Your task to perform on an android device: Open Youtube and go to "Your channel" Image 0: 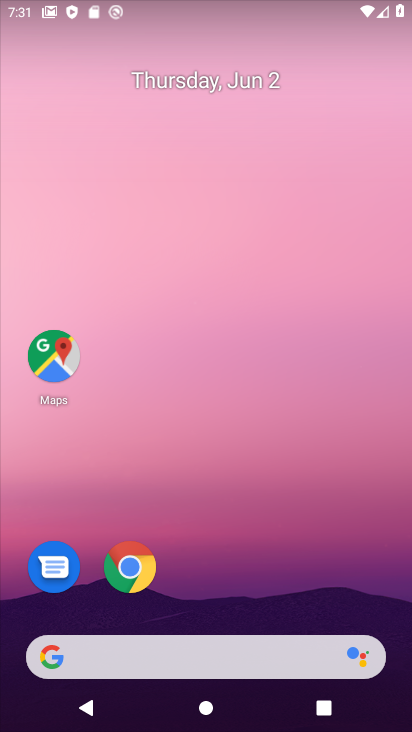
Step 0: drag from (262, 606) to (226, 25)
Your task to perform on an android device: Open Youtube and go to "Your channel" Image 1: 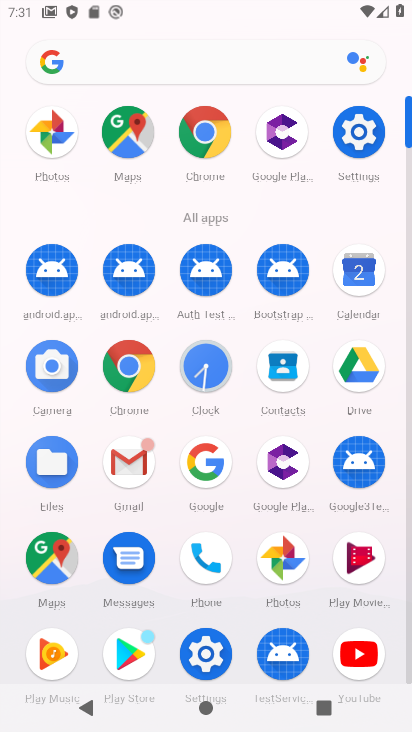
Step 1: drag from (236, 500) to (237, 278)
Your task to perform on an android device: Open Youtube and go to "Your channel" Image 2: 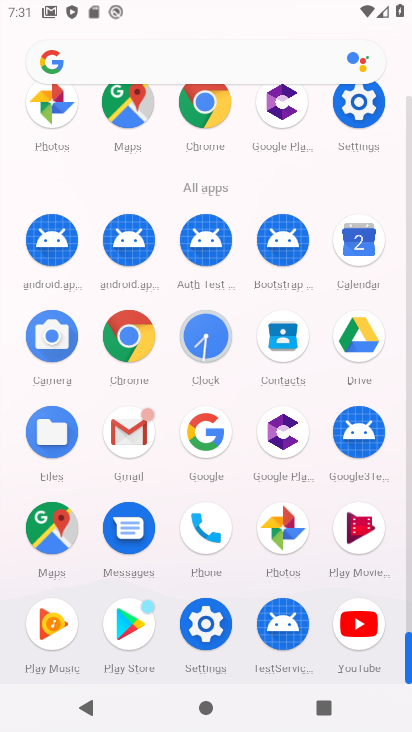
Step 2: click (359, 625)
Your task to perform on an android device: Open Youtube and go to "Your channel" Image 3: 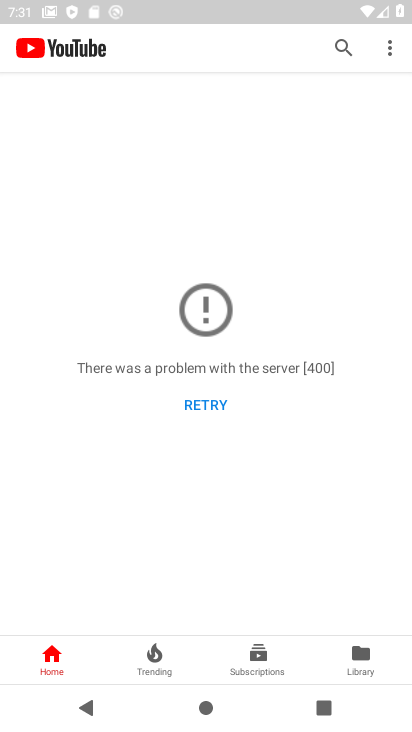
Step 3: click (249, 657)
Your task to perform on an android device: Open Youtube and go to "Your channel" Image 4: 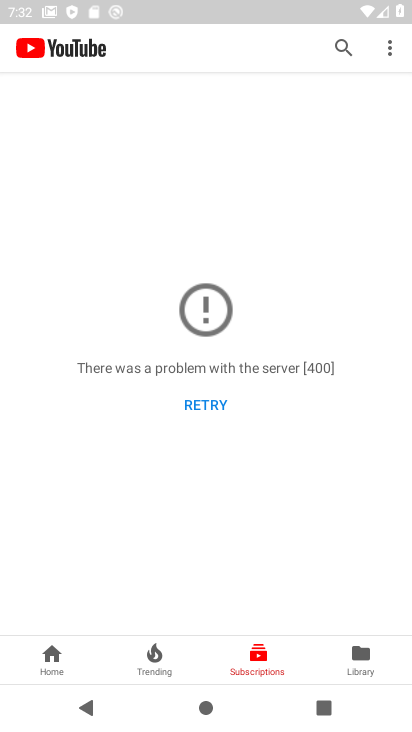
Step 4: click (206, 401)
Your task to perform on an android device: Open Youtube and go to "Your channel" Image 5: 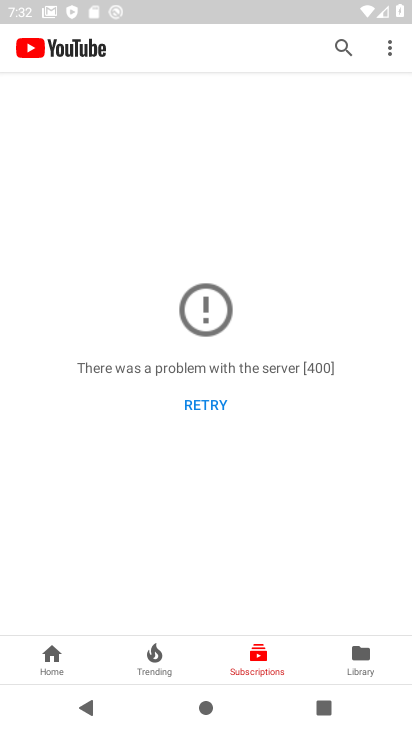
Step 5: click (206, 401)
Your task to perform on an android device: Open Youtube and go to "Your channel" Image 6: 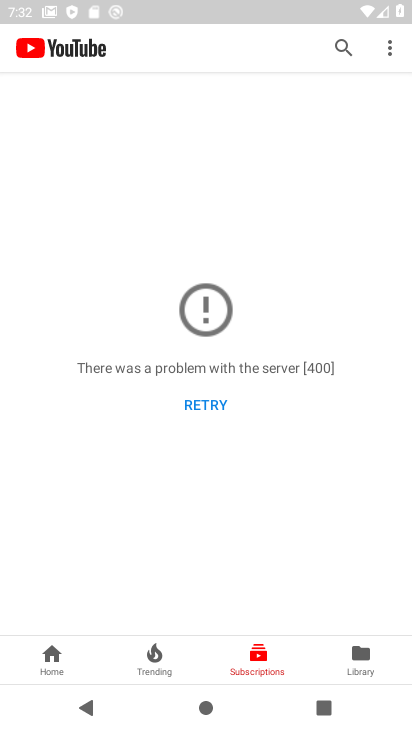
Step 6: click (361, 657)
Your task to perform on an android device: Open Youtube and go to "Your channel" Image 7: 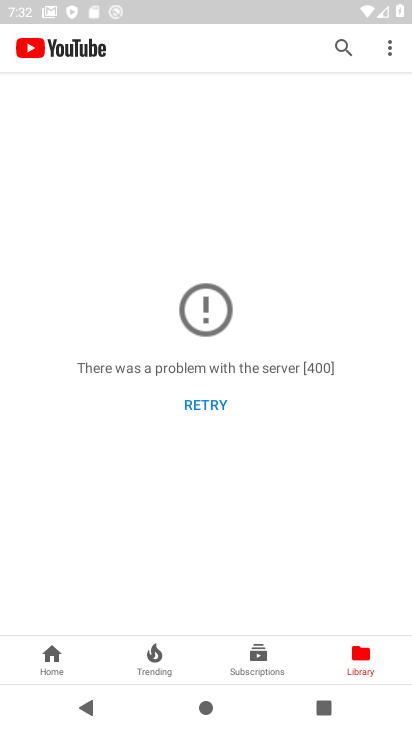
Step 7: click (210, 402)
Your task to perform on an android device: Open Youtube and go to "Your channel" Image 8: 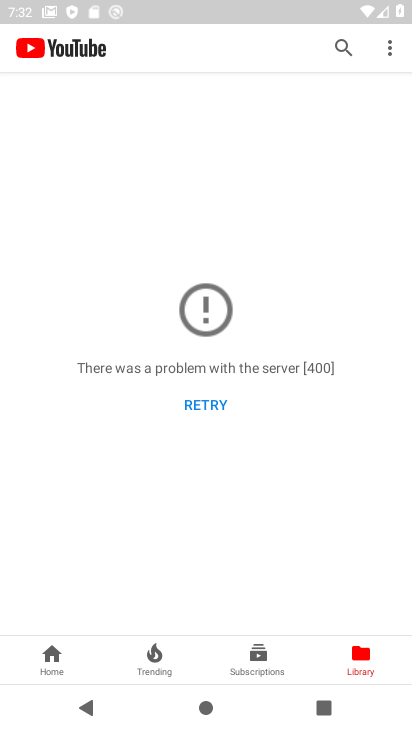
Step 8: task complete